Your task to perform on an android device: read, delete, or share a saved page in the chrome app Image 0: 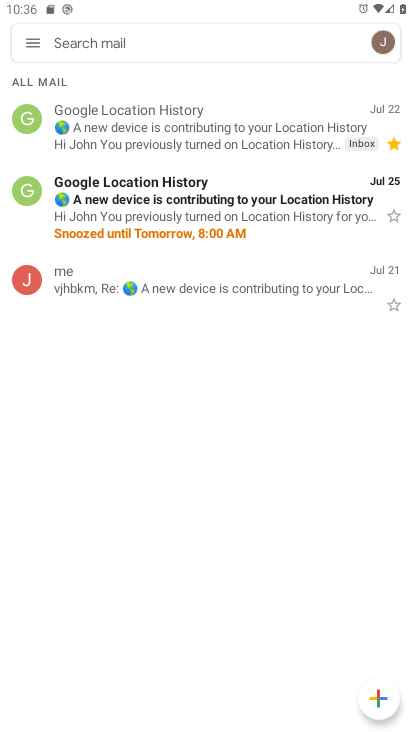
Step 0: press home button
Your task to perform on an android device: read, delete, or share a saved page in the chrome app Image 1: 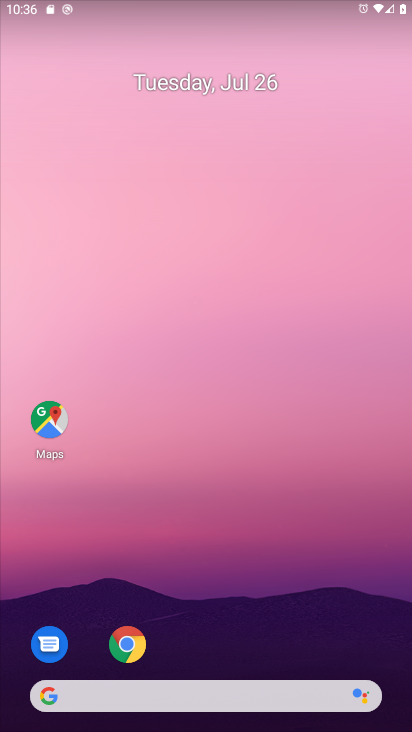
Step 1: click (132, 642)
Your task to perform on an android device: read, delete, or share a saved page in the chrome app Image 2: 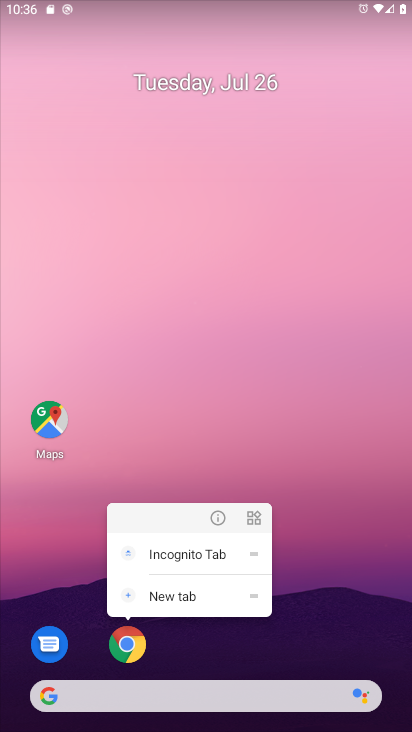
Step 2: click (129, 652)
Your task to perform on an android device: read, delete, or share a saved page in the chrome app Image 3: 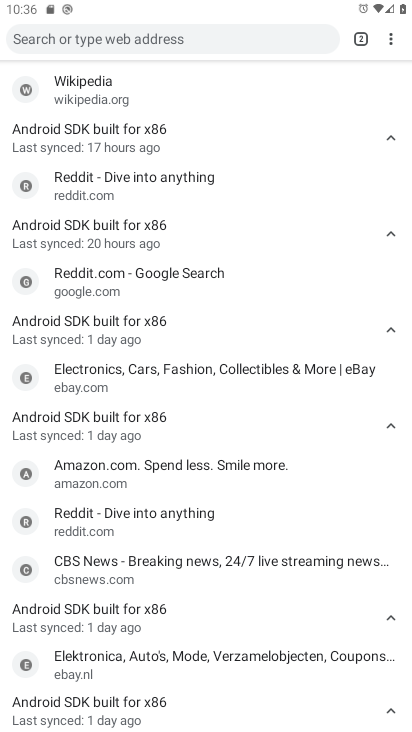
Step 3: click (393, 36)
Your task to perform on an android device: read, delete, or share a saved page in the chrome app Image 4: 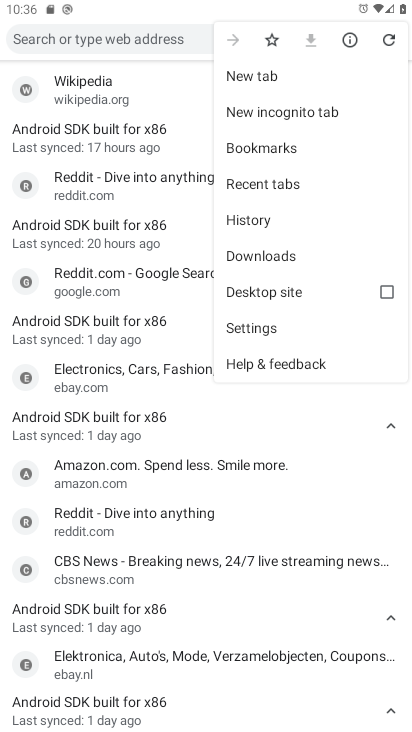
Step 4: click (263, 257)
Your task to perform on an android device: read, delete, or share a saved page in the chrome app Image 5: 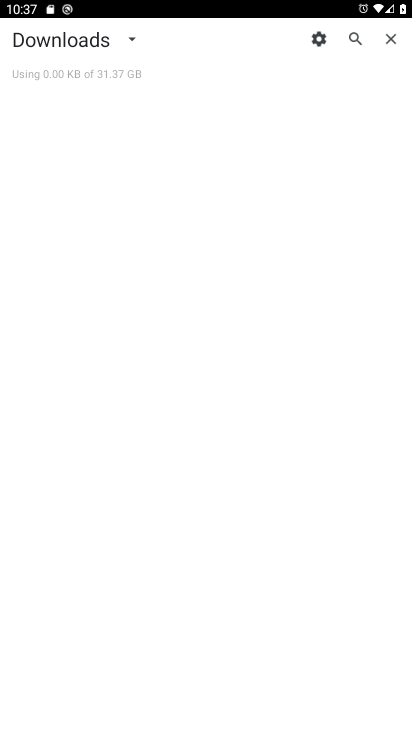
Step 5: task complete